Your task to perform on an android device: Go to Maps Image 0: 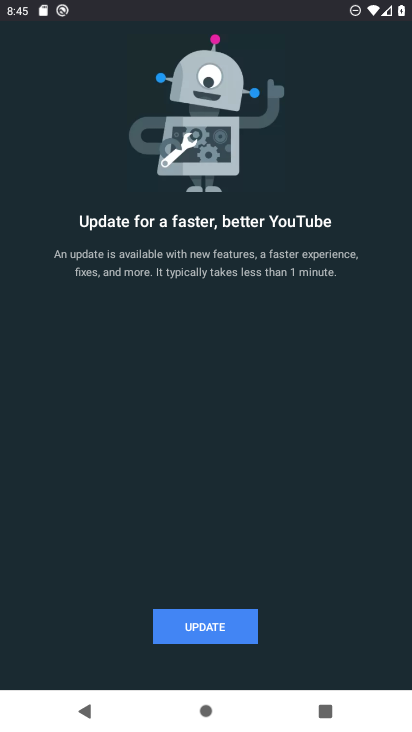
Step 0: press back button
Your task to perform on an android device: Go to Maps Image 1: 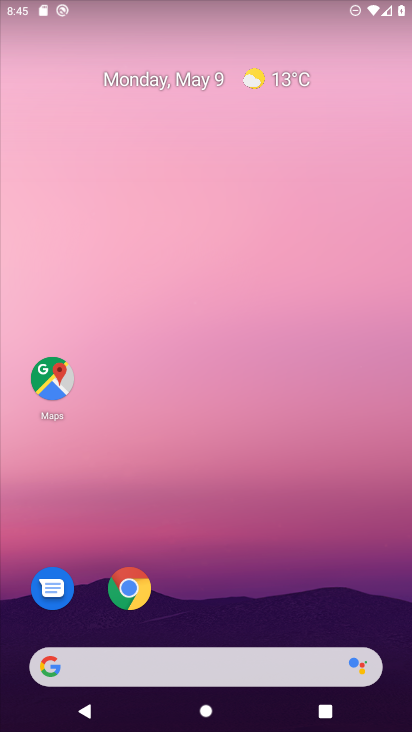
Step 1: click (53, 386)
Your task to perform on an android device: Go to Maps Image 2: 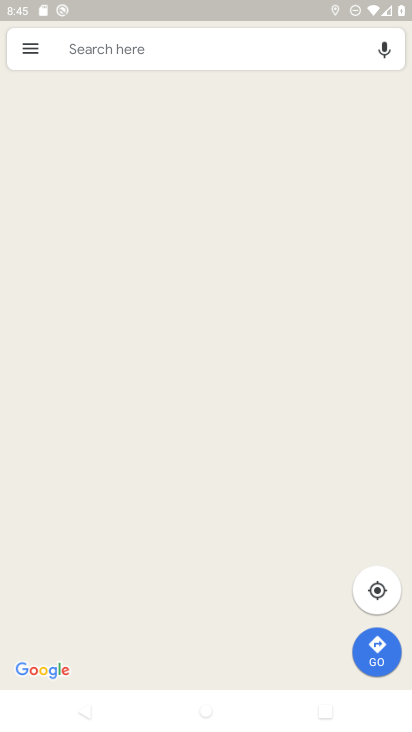
Step 2: task complete